Your task to perform on an android device: turn off smart reply in the gmail app Image 0: 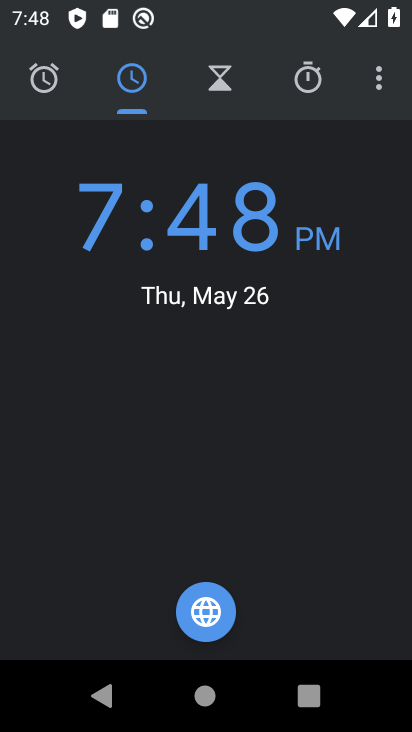
Step 0: press home button
Your task to perform on an android device: turn off smart reply in the gmail app Image 1: 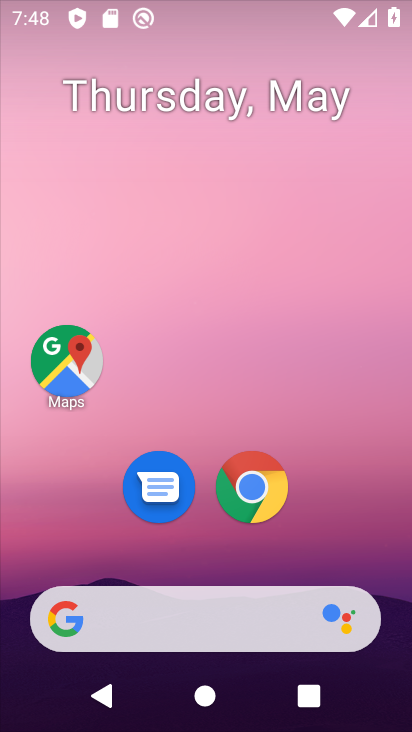
Step 1: drag from (146, 729) to (182, 129)
Your task to perform on an android device: turn off smart reply in the gmail app Image 2: 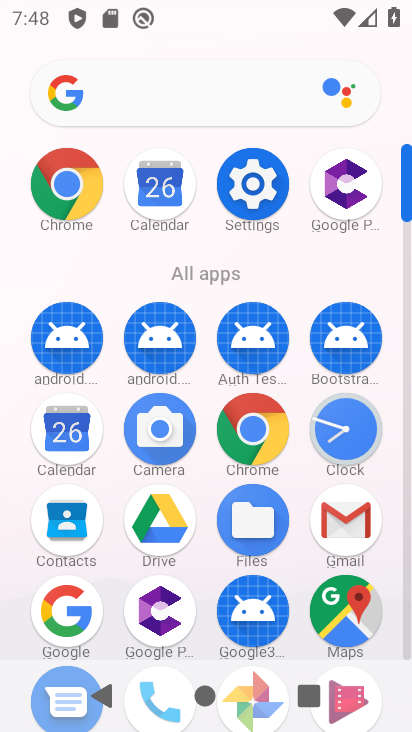
Step 2: click (366, 532)
Your task to perform on an android device: turn off smart reply in the gmail app Image 3: 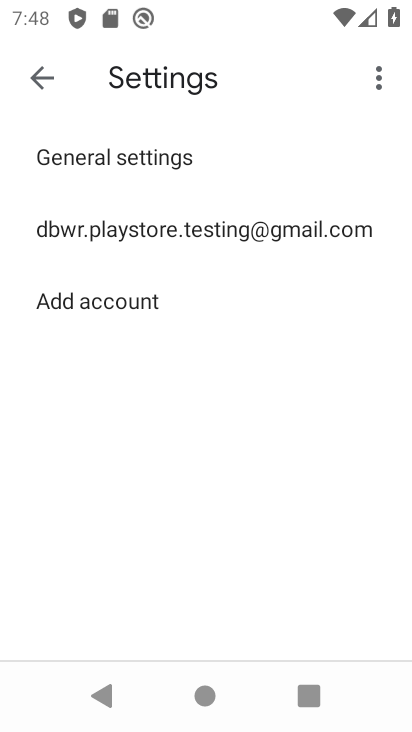
Step 3: click (48, 77)
Your task to perform on an android device: turn off smart reply in the gmail app Image 4: 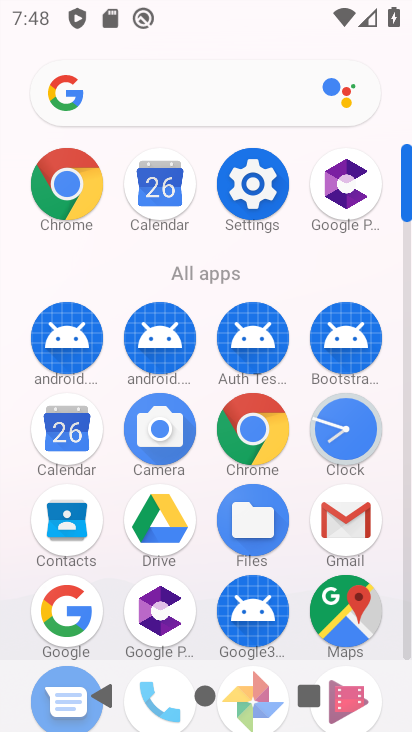
Step 4: click (346, 542)
Your task to perform on an android device: turn off smart reply in the gmail app Image 5: 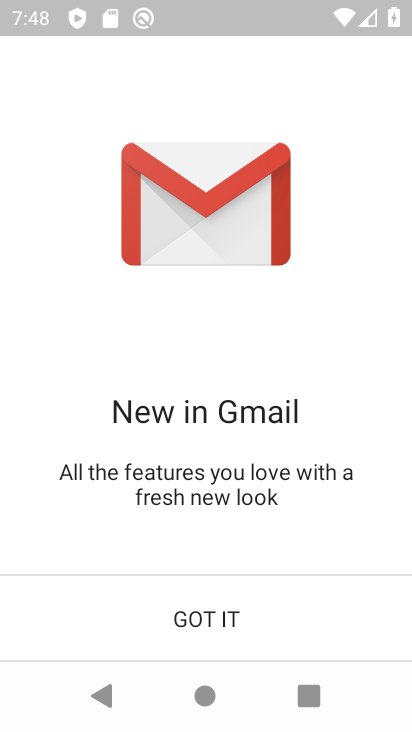
Step 5: click (235, 619)
Your task to perform on an android device: turn off smart reply in the gmail app Image 6: 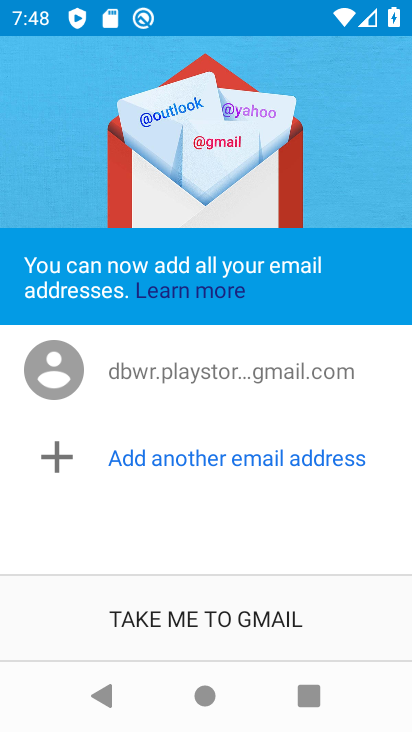
Step 6: click (195, 633)
Your task to perform on an android device: turn off smart reply in the gmail app Image 7: 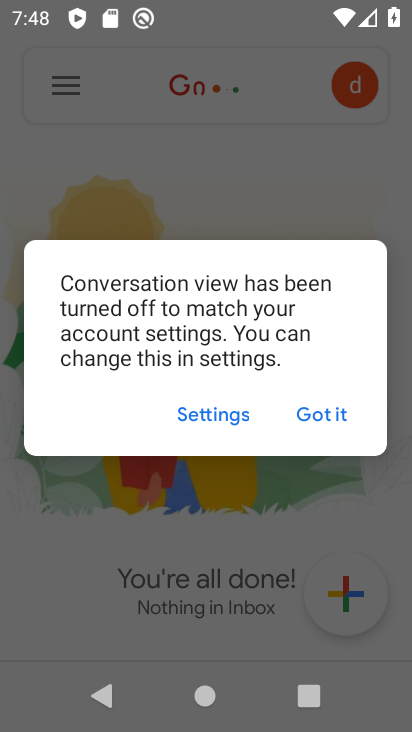
Step 7: click (302, 417)
Your task to perform on an android device: turn off smart reply in the gmail app Image 8: 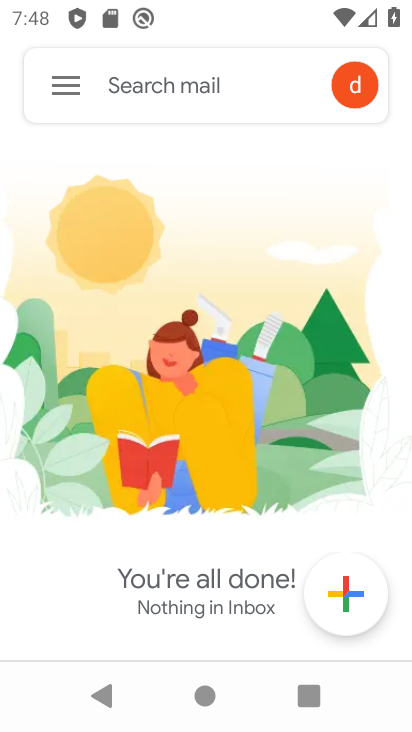
Step 8: click (77, 89)
Your task to perform on an android device: turn off smart reply in the gmail app Image 9: 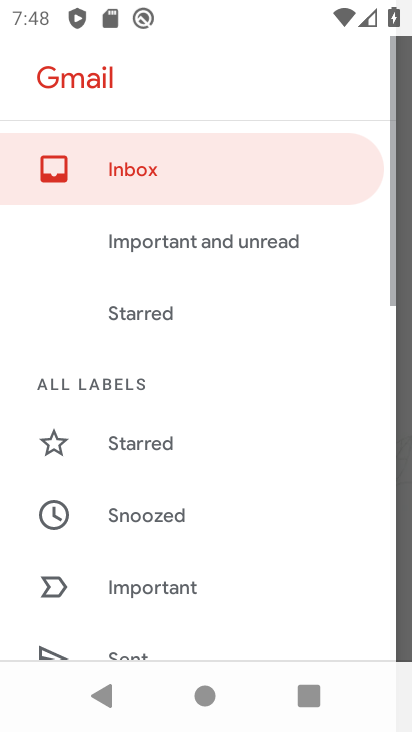
Step 9: drag from (242, 634) to (303, 275)
Your task to perform on an android device: turn off smart reply in the gmail app Image 10: 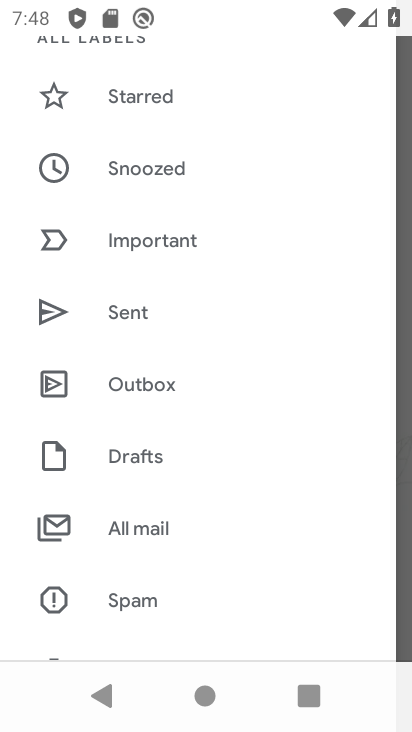
Step 10: drag from (222, 607) to (280, 245)
Your task to perform on an android device: turn off smart reply in the gmail app Image 11: 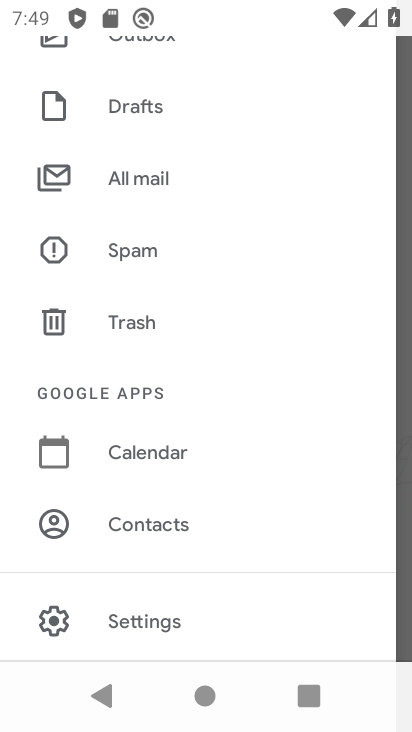
Step 11: click (136, 622)
Your task to perform on an android device: turn off smart reply in the gmail app Image 12: 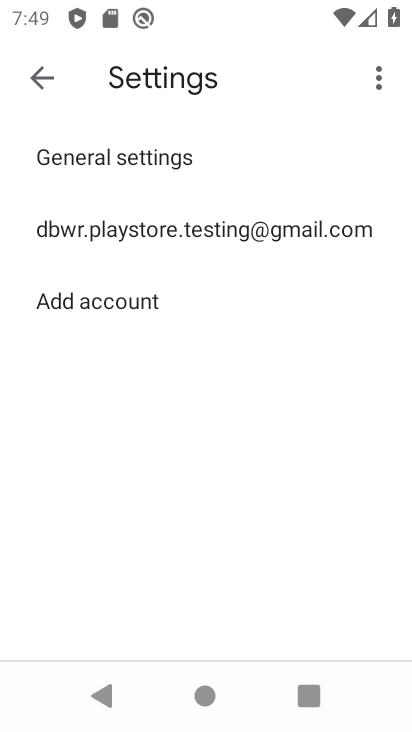
Step 12: click (158, 244)
Your task to perform on an android device: turn off smart reply in the gmail app Image 13: 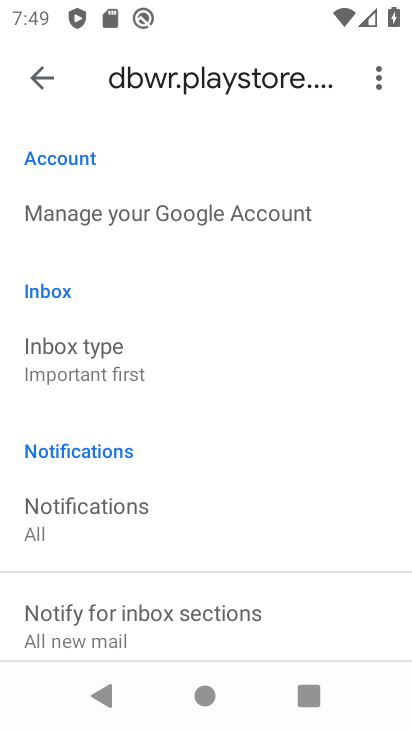
Step 13: drag from (160, 577) to (209, 216)
Your task to perform on an android device: turn off smart reply in the gmail app Image 14: 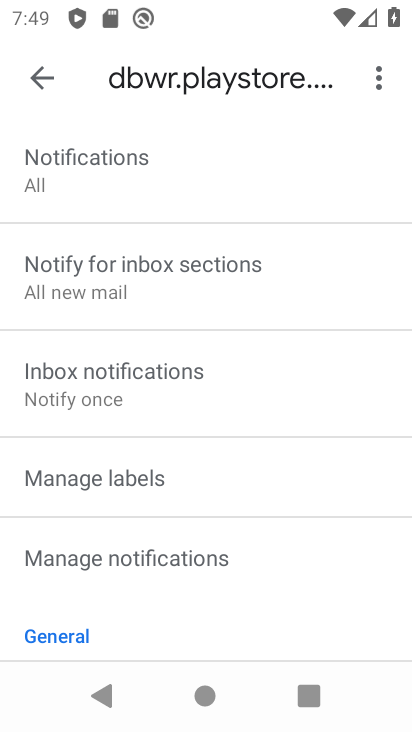
Step 14: drag from (208, 583) to (258, 291)
Your task to perform on an android device: turn off smart reply in the gmail app Image 15: 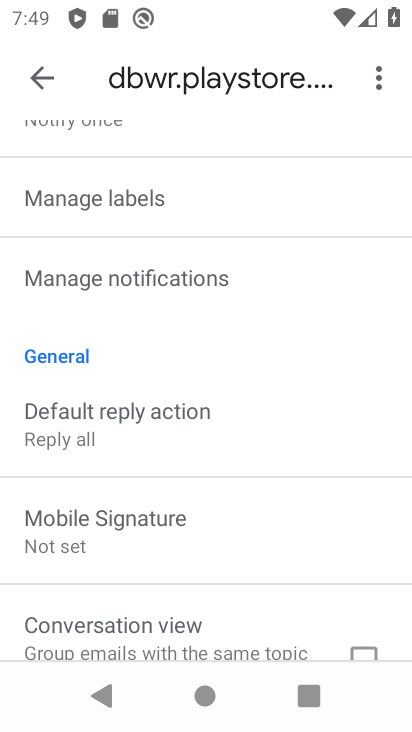
Step 15: drag from (229, 586) to (265, 282)
Your task to perform on an android device: turn off smart reply in the gmail app Image 16: 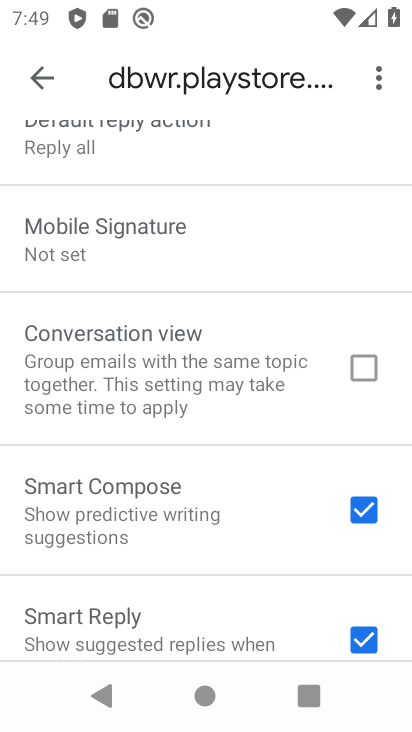
Step 16: drag from (251, 617) to (270, 416)
Your task to perform on an android device: turn off smart reply in the gmail app Image 17: 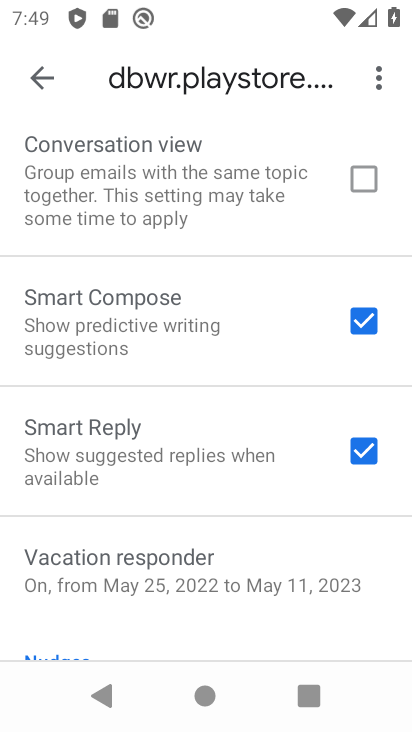
Step 17: click (361, 457)
Your task to perform on an android device: turn off smart reply in the gmail app Image 18: 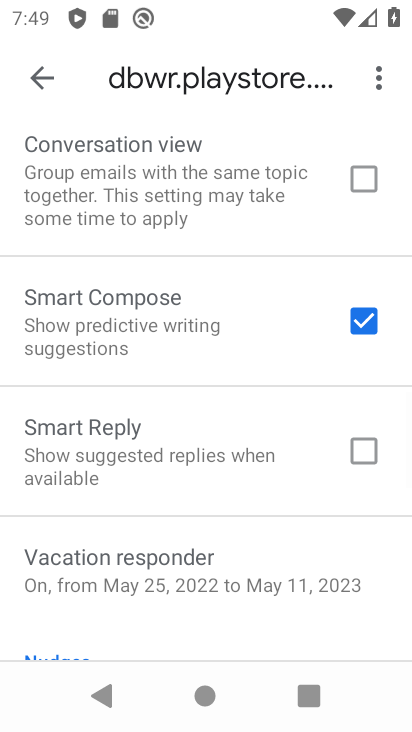
Step 18: task complete